Your task to perform on an android device: Is it going to rain this weekend? Image 0: 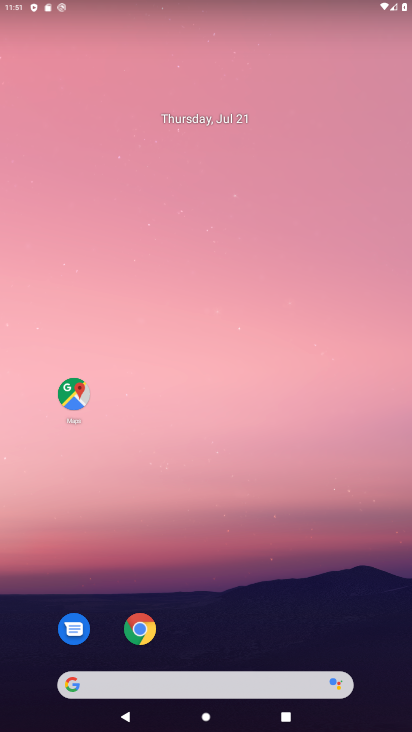
Step 0: drag from (260, 679) to (212, 5)
Your task to perform on an android device: Is it going to rain this weekend? Image 1: 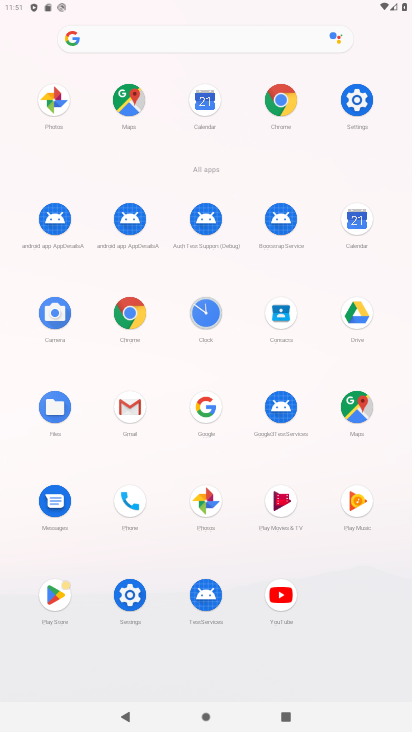
Step 1: click (363, 206)
Your task to perform on an android device: Is it going to rain this weekend? Image 2: 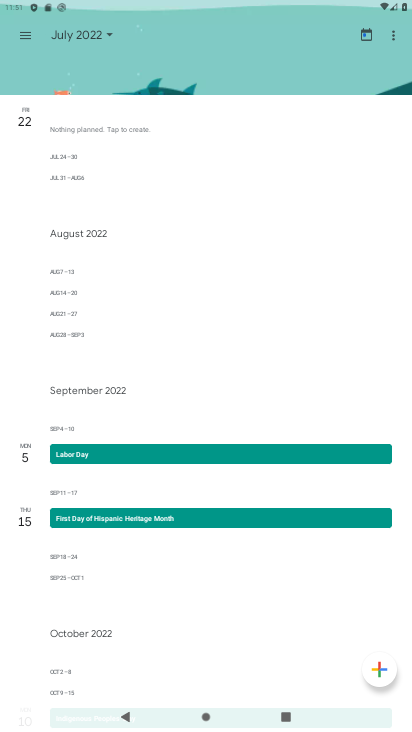
Step 2: click (114, 33)
Your task to perform on an android device: Is it going to rain this weekend? Image 3: 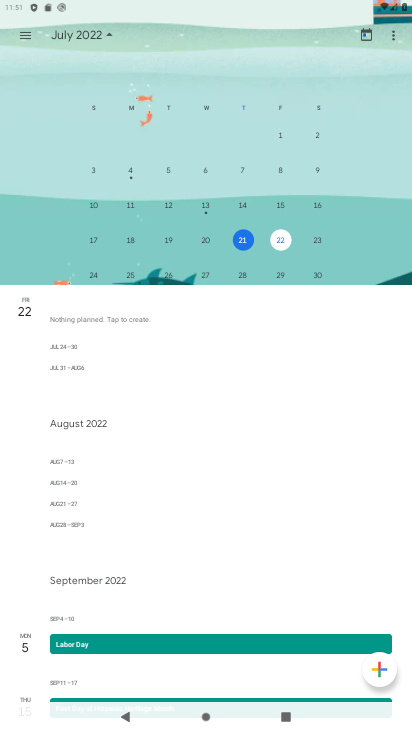
Step 3: drag from (267, 231) to (27, 188)
Your task to perform on an android device: Is it going to rain this weekend? Image 4: 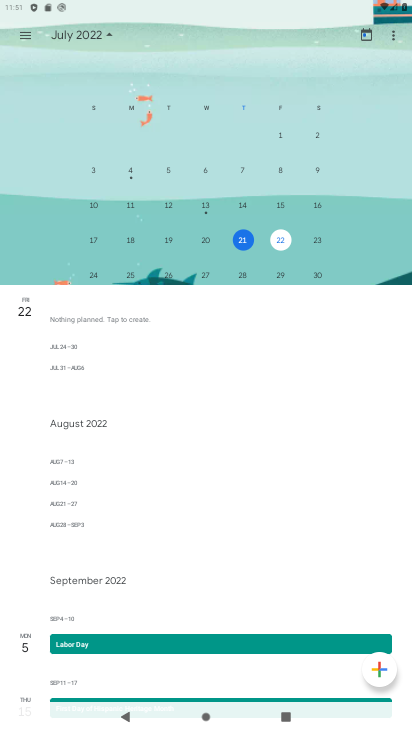
Step 4: click (314, 237)
Your task to perform on an android device: Is it going to rain this weekend? Image 5: 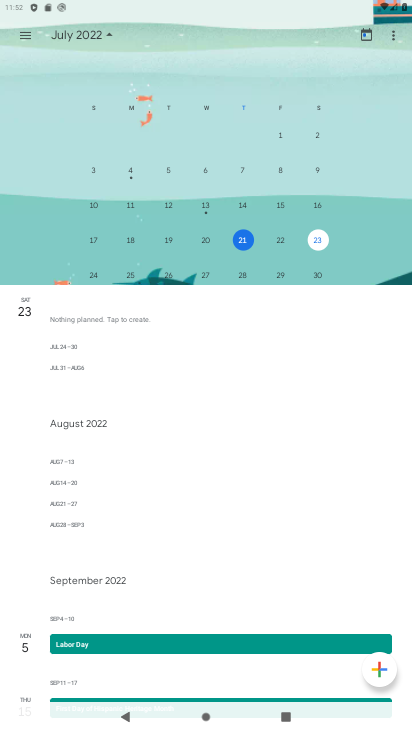
Step 5: task complete